Your task to perform on an android device: toggle improve location accuracy Image 0: 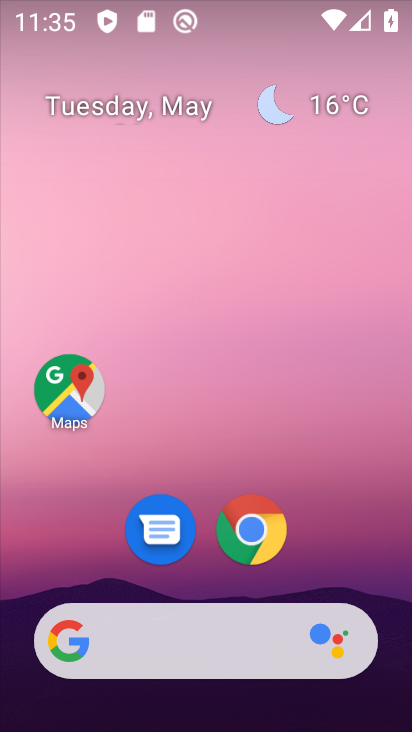
Step 0: drag from (83, 561) to (206, 103)
Your task to perform on an android device: toggle improve location accuracy Image 1: 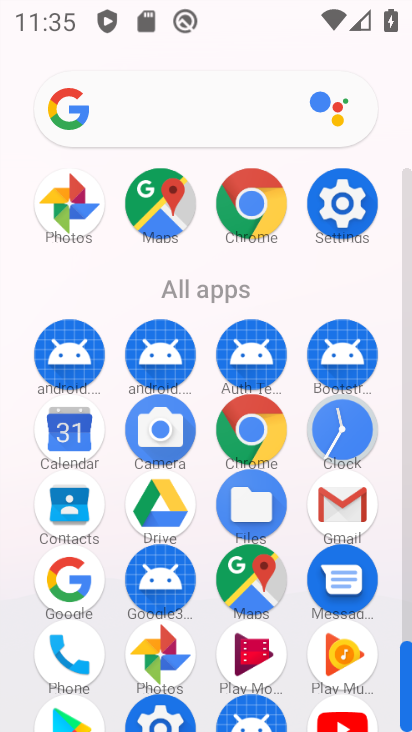
Step 1: drag from (184, 536) to (245, 235)
Your task to perform on an android device: toggle improve location accuracy Image 2: 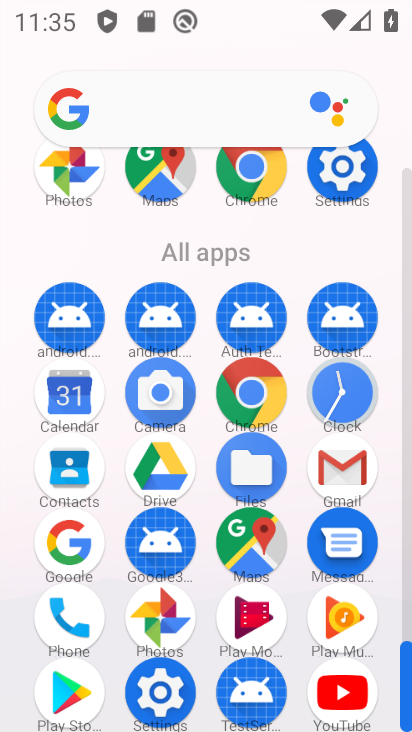
Step 2: click (175, 697)
Your task to perform on an android device: toggle improve location accuracy Image 3: 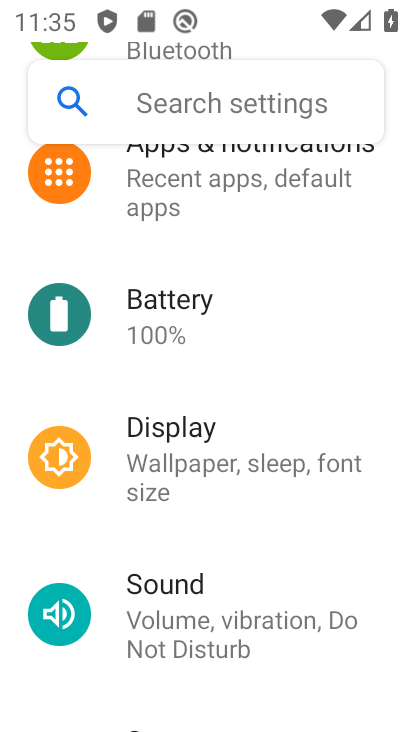
Step 3: drag from (254, 620) to (311, 273)
Your task to perform on an android device: toggle improve location accuracy Image 4: 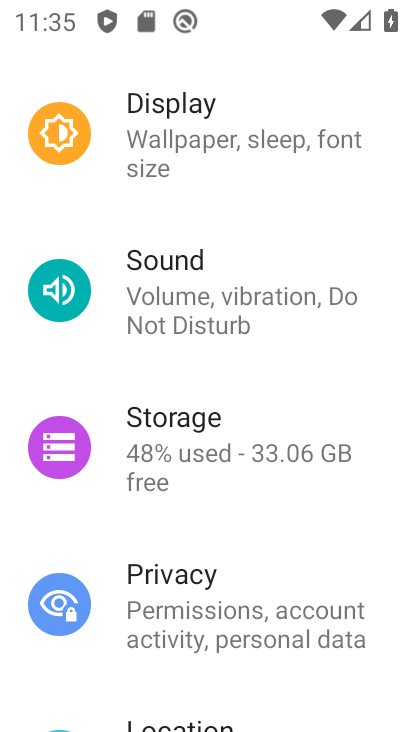
Step 4: drag from (183, 652) to (262, 308)
Your task to perform on an android device: toggle improve location accuracy Image 5: 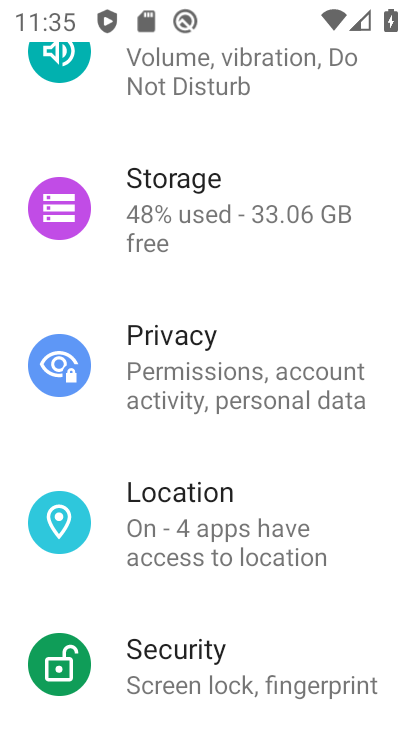
Step 5: click (237, 513)
Your task to perform on an android device: toggle improve location accuracy Image 6: 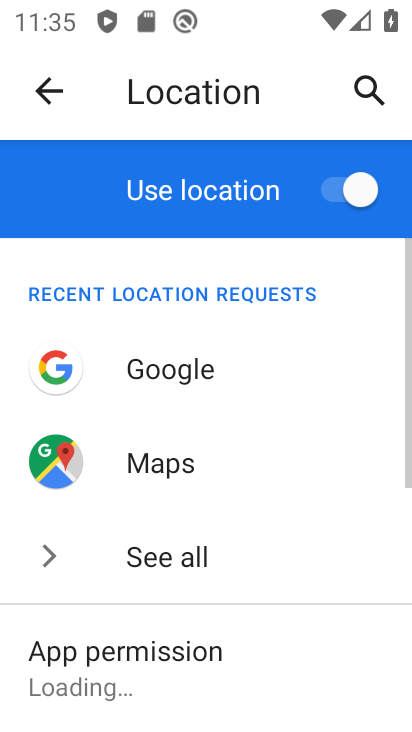
Step 6: drag from (267, 617) to (333, 270)
Your task to perform on an android device: toggle improve location accuracy Image 7: 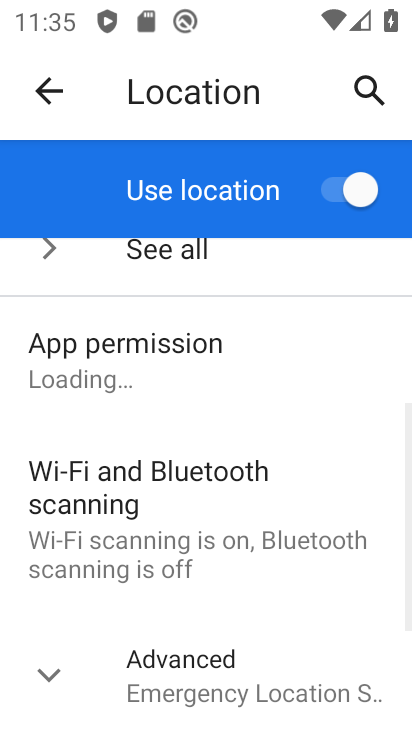
Step 7: click (246, 678)
Your task to perform on an android device: toggle improve location accuracy Image 8: 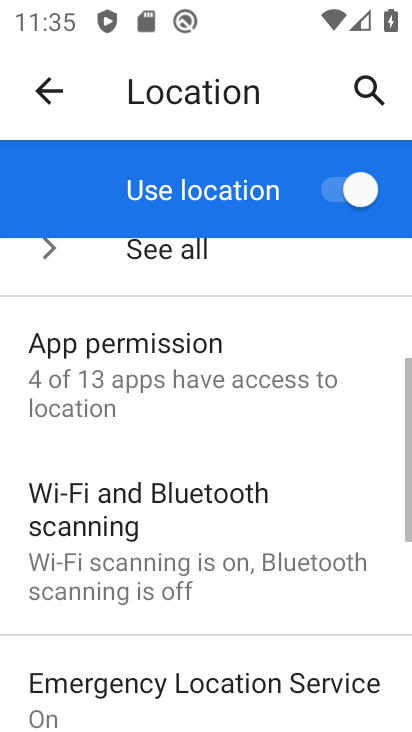
Step 8: drag from (265, 640) to (367, 189)
Your task to perform on an android device: toggle improve location accuracy Image 9: 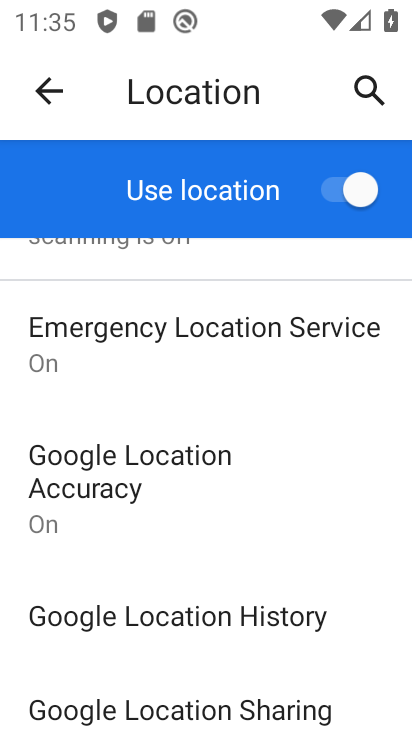
Step 9: drag from (262, 686) to (306, 469)
Your task to perform on an android device: toggle improve location accuracy Image 10: 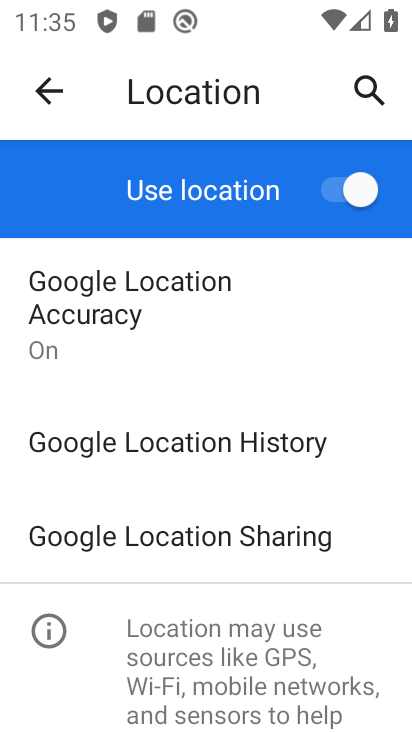
Step 10: click (254, 334)
Your task to perform on an android device: toggle improve location accuracy Image 11: 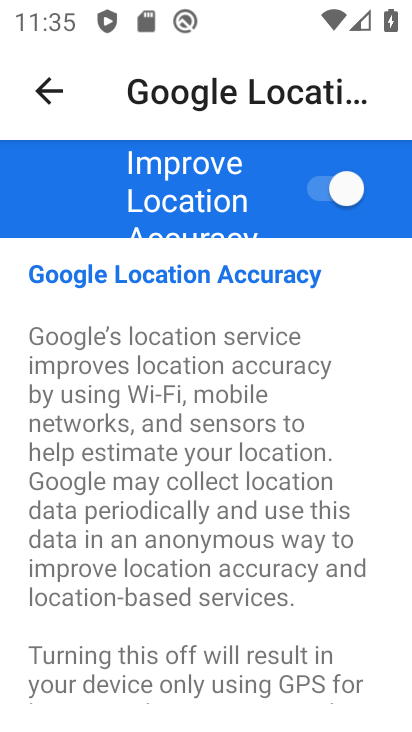
Step 11: click (332, 197)
Your task to perform on an android device: toggle improve location accuracy Image 12: 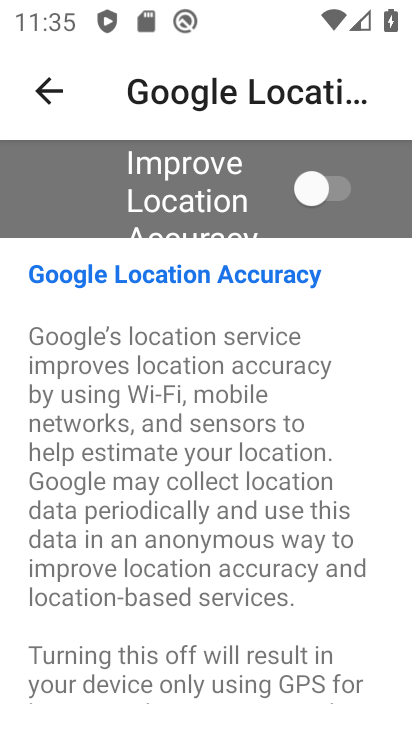
Step 12: task complete